Your task to perform on an android device: Go to location settings Image 0: 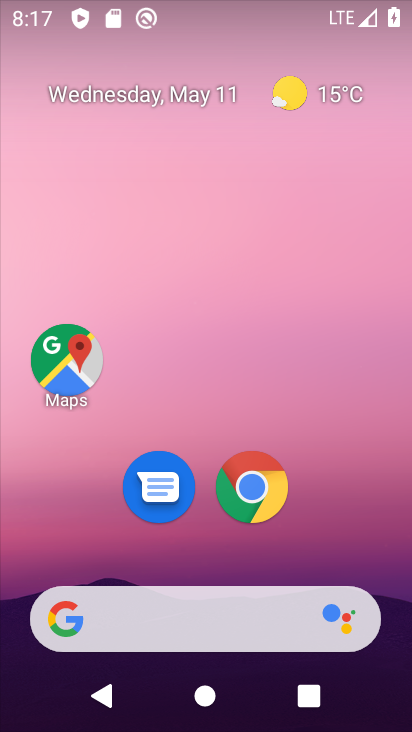
Step 0: drag from (257, 665) to (259, 269)
Your task to perform on an android device: Go to location settings Image 1: 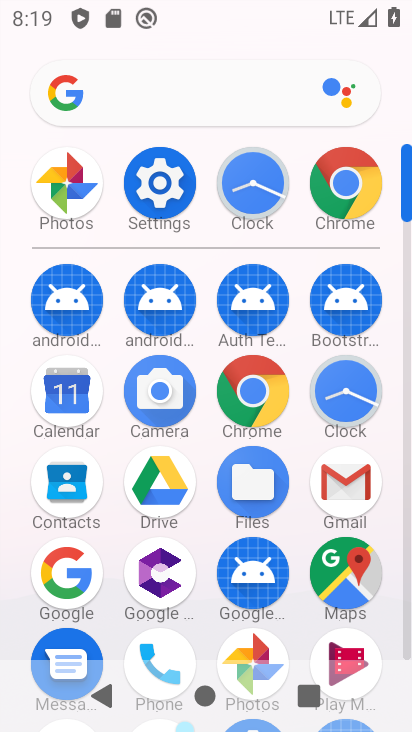
Step 1: click (170, 205)
Your task to perform on an android device: Go to location settings Image 2: 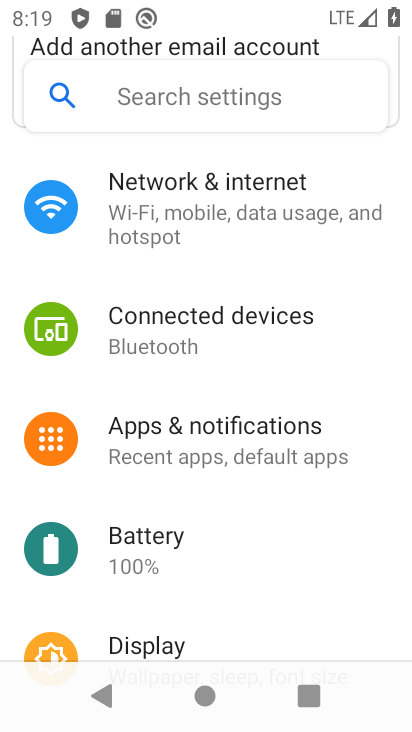
Step 2: click (166, 104)
Your task to perform on an android device: Go to location settings Image 3: 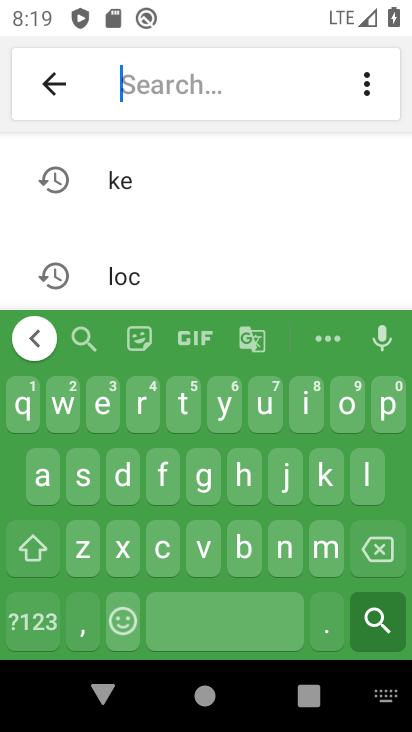
Step 3: click (149, 274)
Your task to perform on an android device: Go to location settings Image 4: 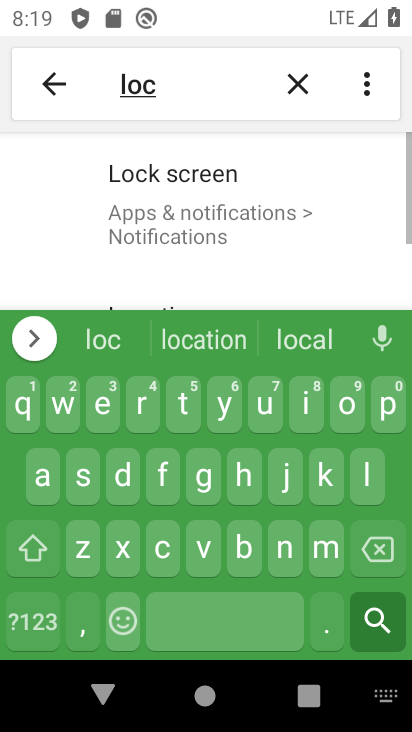
Step 4: drag from (202, 206) to (227, 131)
Your task to perform on an android device: Go to location settings Image 5: 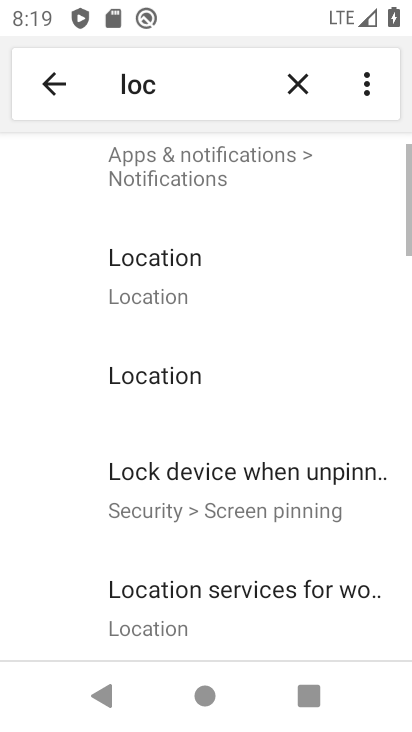
Step 5: click (205, 277)
Your task to perform on an android device: Go to location settings Image 6: 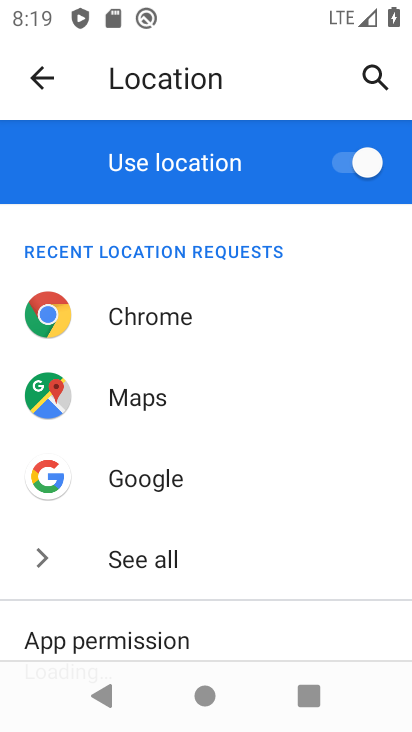
Step 6: task complete